Your task to perform on an android device: Open Google Chrome and open the bookmarks view Image 0: 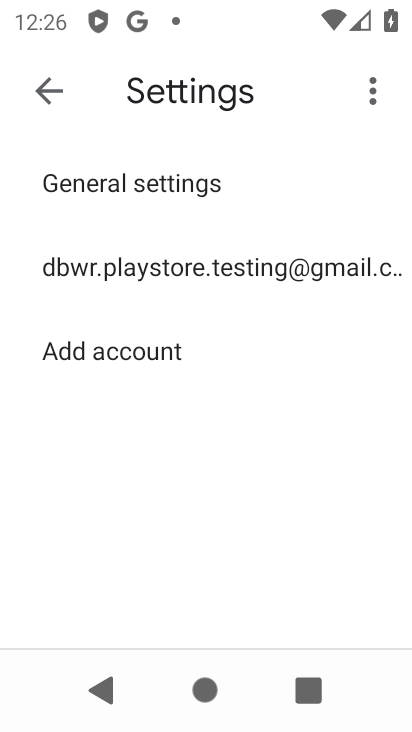
Step 0: press home button
Your task to perform on an android device: Open Google Chrome and open the bookmarks view Image 1: 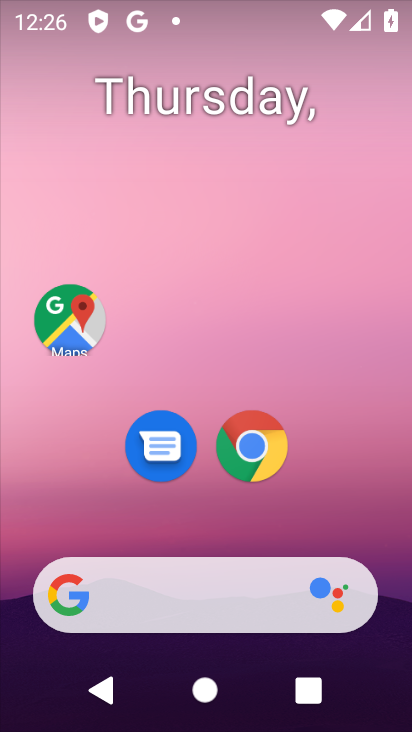
Step 1: click (261, 447)
Your task to perform on an android device: Open Google Chrome and open the bookmarks view Image 2: 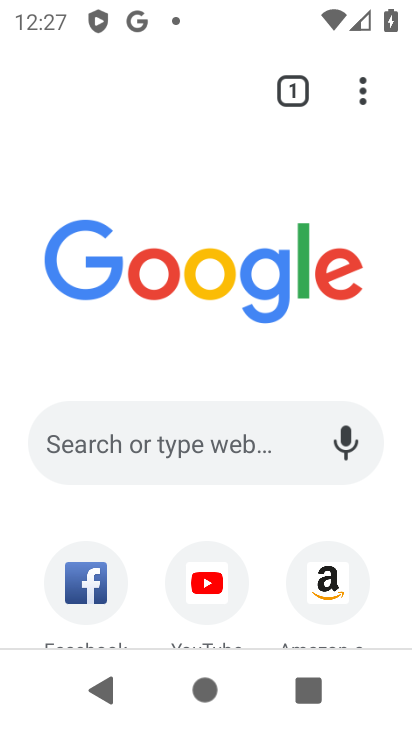
Step 2: task complete